Your task to perform on an android device: check battery use Image 0: 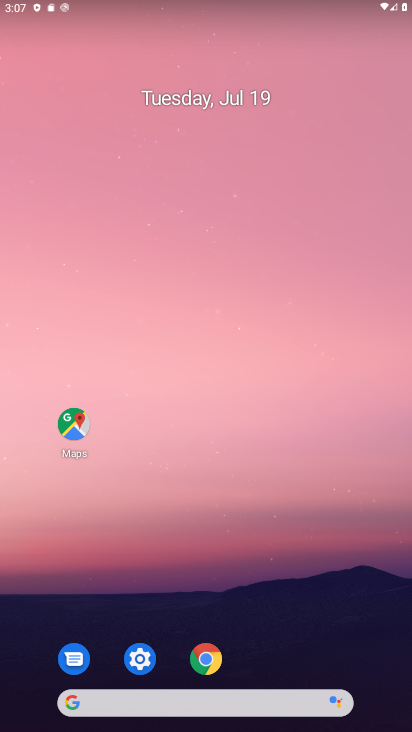
Step 0: drag from (182, 600) to (186, 105)
Your task to perform on an android device: check battery use Image 1: 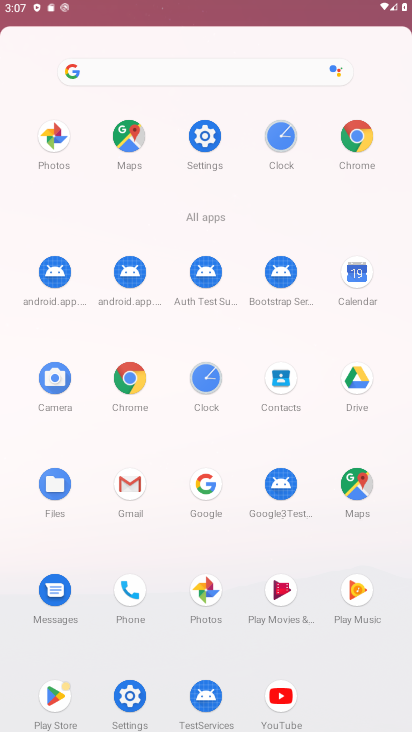
Step 1: drag from (240, 299) to (241, 90)
Your task to perform on an android device: check battery use Image 2: 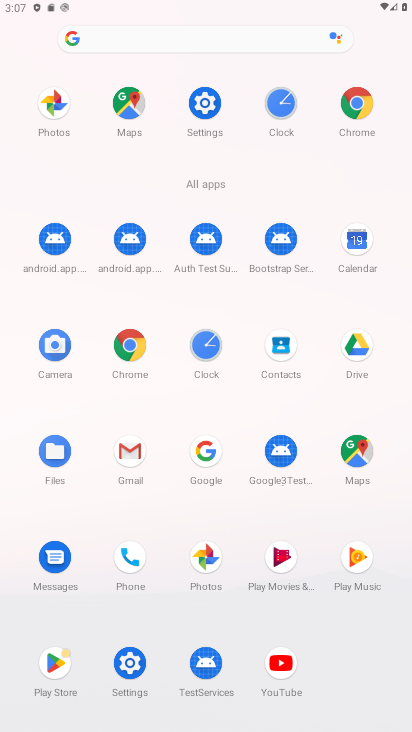
Step 2: click (207, 102)
Your task to perform on an android device: check battery use Image 3: 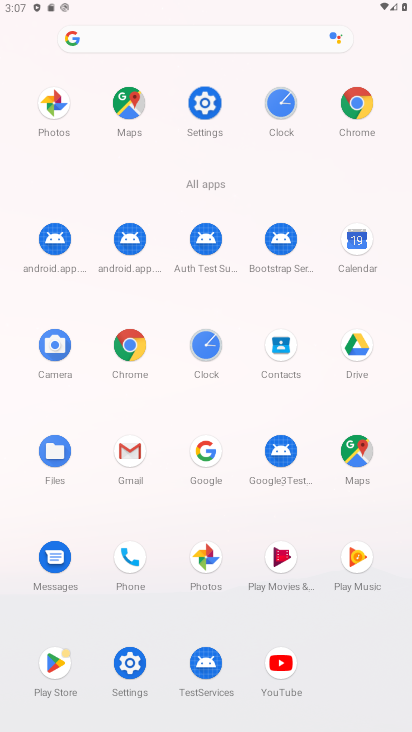
Step 3: click (203, 102)
Your task to perform on an android device: check battery use Image 4: 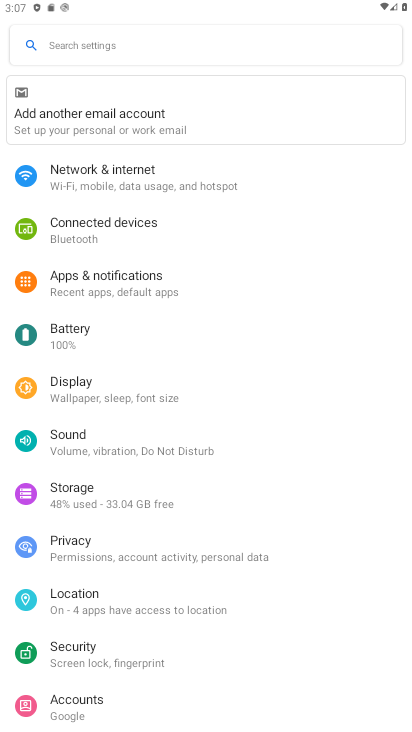
Step 4: click (67, 333)
Your task to perform on an android device: check battery use Image 5: 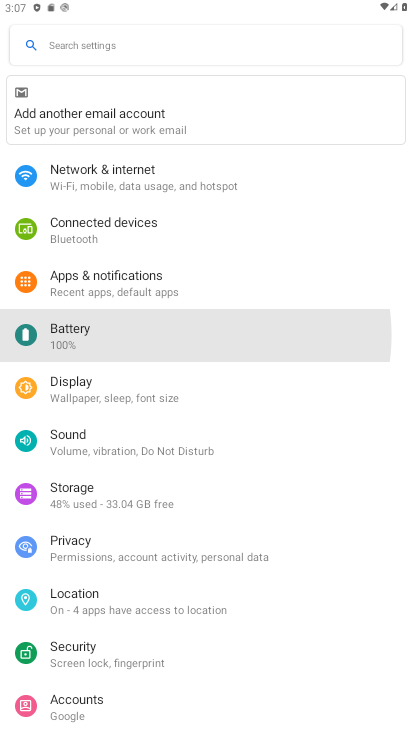
Step 5: click (67, 333)
Your task to perform on an android device: check battery use Image 6: 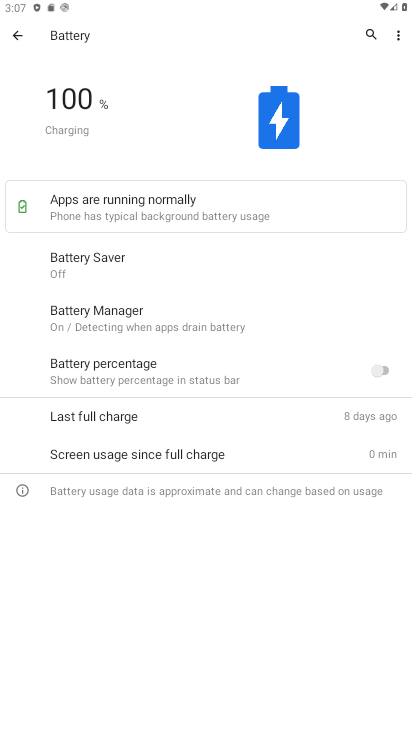
Step 6: task complete